Your task to perform on an android device: turn on data saver in the chrome app Image 0: 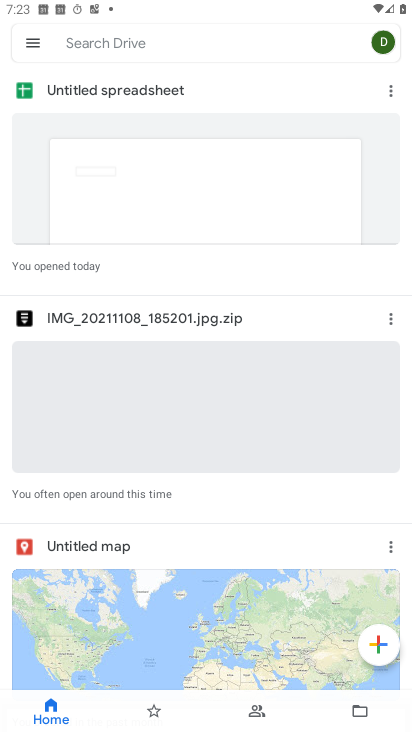
Step 0: press home button
Your task to perform on an android device: turn on data saver in the chrome app Image 1: 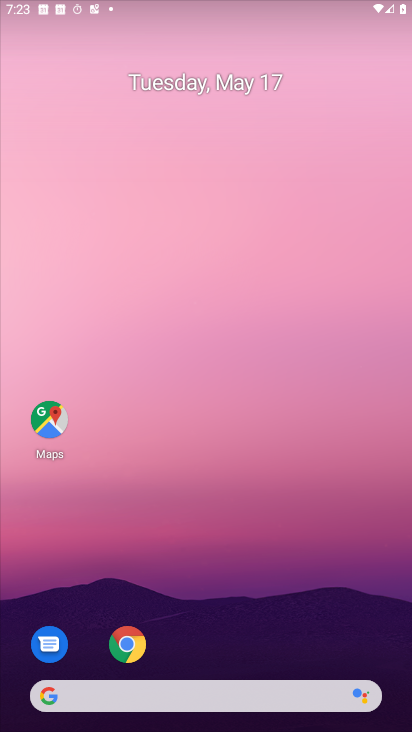
Step 1: drag from (320, 621) to (167, 34)
Your task to perform on an android device: turn on data saver in the chrome app Image 2: 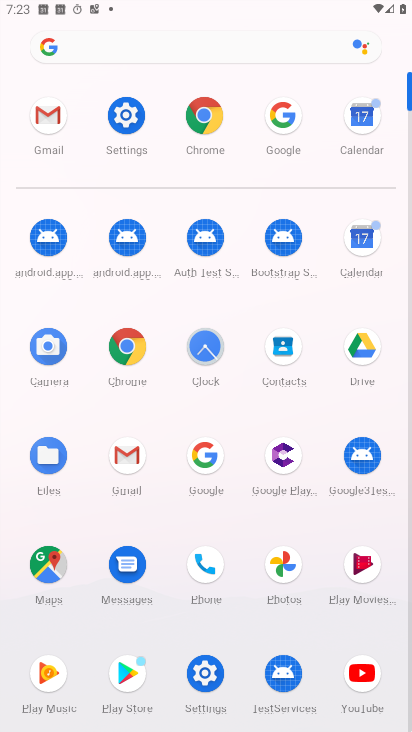
Step 2: click (212, 114)
Your task to perform on an android device: turn on data saver in the chrome app Image 3: 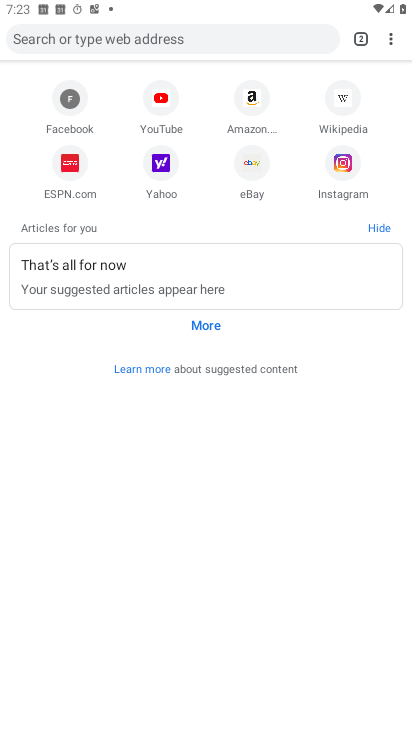
Step 3: click (389, 35)
Your task to perform on an android device: turn on data saver in the chrome app Image 4: 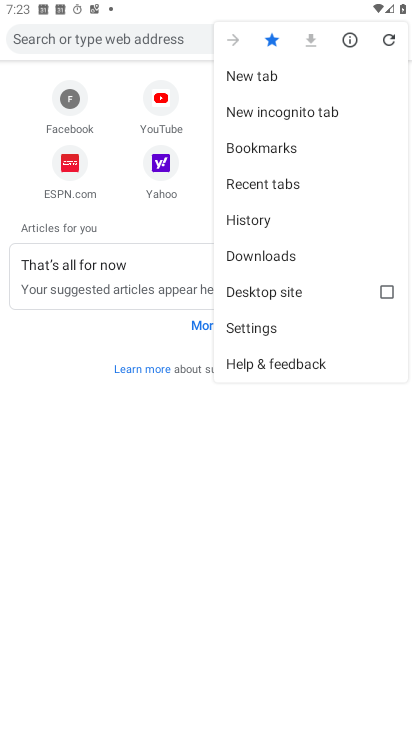
Step 4: click (276, 336)
Your task to perform on an android device: turn on data saver in the chrome app Image 5: 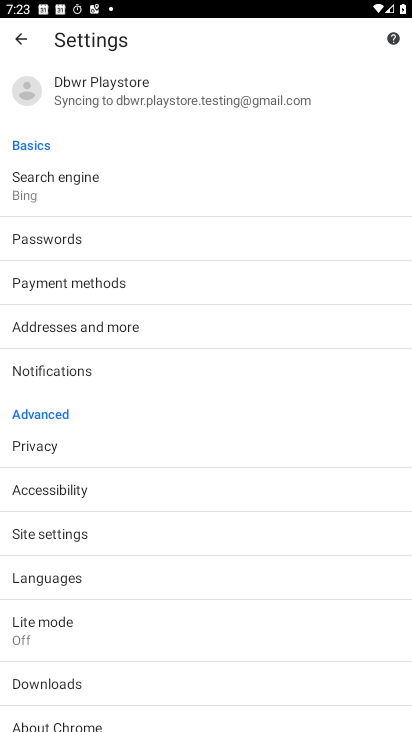
Step 5: click (120, 648)
Your task to perform on an android device: turn on data saver in the chrome app Image 6: 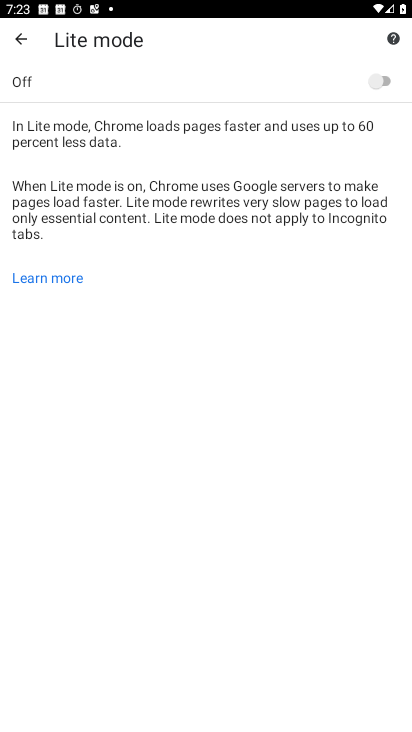
Step 6: click (356, 78)
Your task to perform on an android device: turn on data saver in the chrome app Image 7: 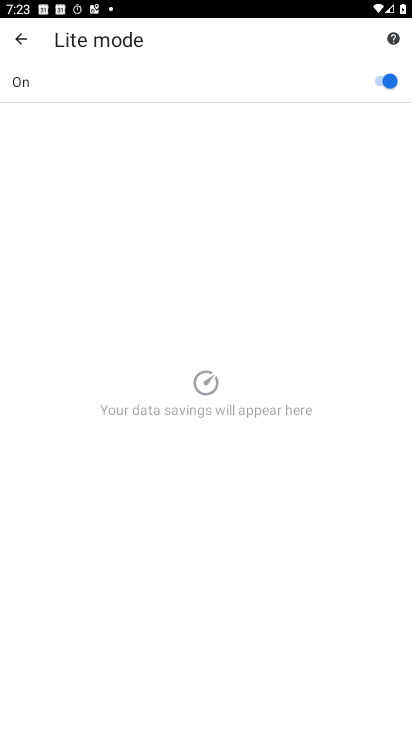
Step 7: task complete